Your task to perform on an android device: Search for seafood restaurants on Google Maps Image 0: 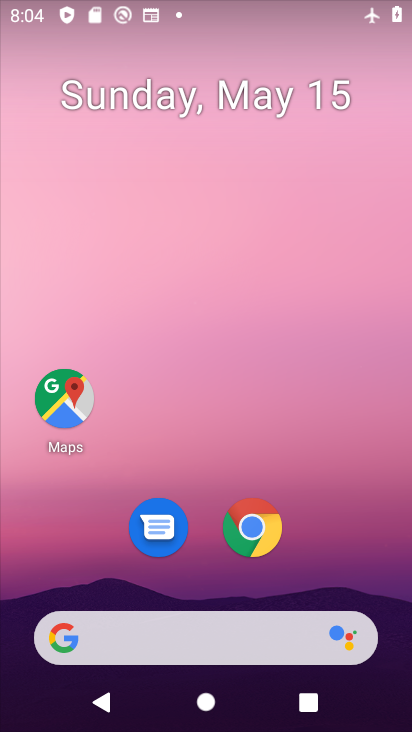
Step 0: click (73, 406)
Your task to perform on an android device: Search for seafood restaurants on Google Maps Image 1: 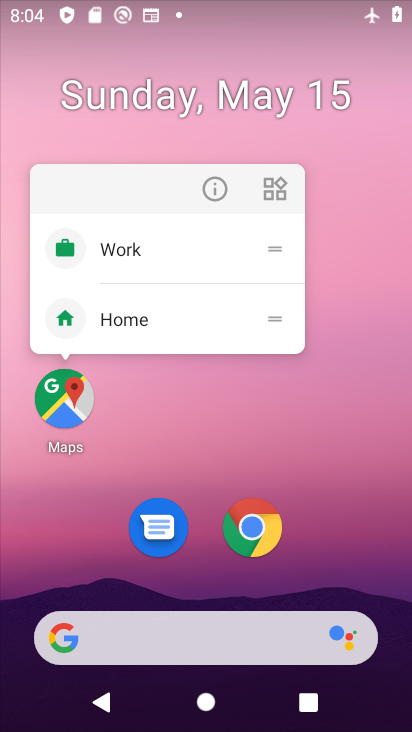
Step 1: click (73, 406)
Your task to perform on an android device: Search for seafood restaurants on Google Maps Image 2: 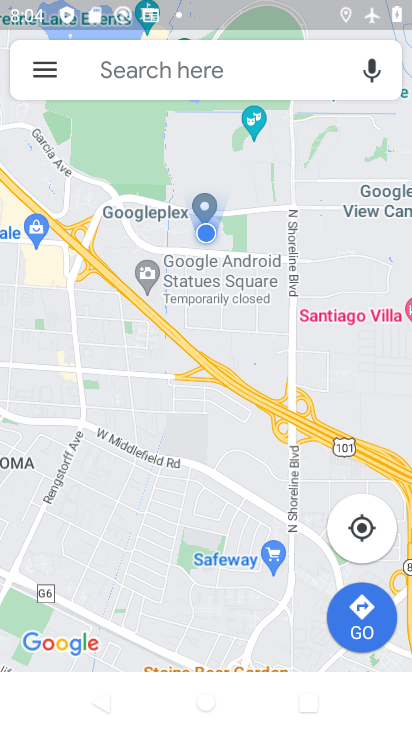
Step 2: click (97, 70)
Your task to perform on an android device: Search for seafood restaurants on Google Maps Image 3: 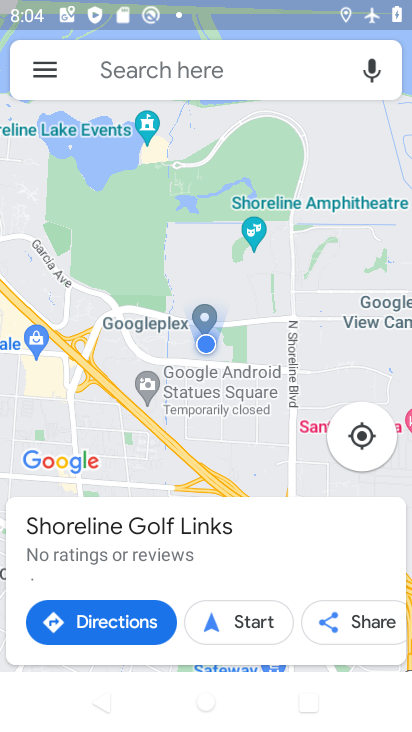
Step 3: click (165, 71)
Your task to perform on an android device: Search for seafood restaurants on Google Maps Image 4: 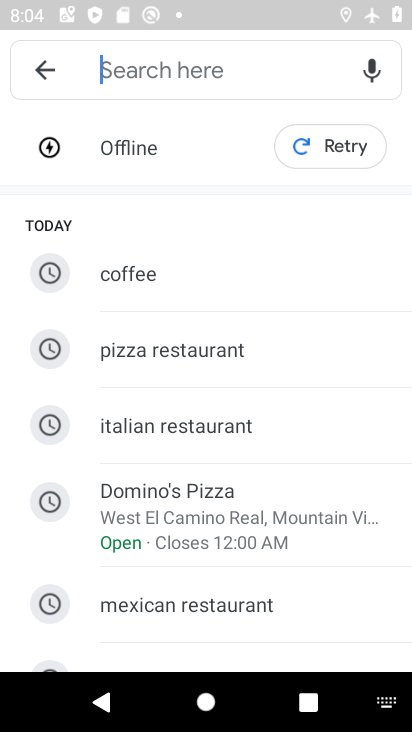
Step 4: type "seafood restaurants"
Your task to perform on an android device: Search for seafood restaurants on Google Maps Image 5: 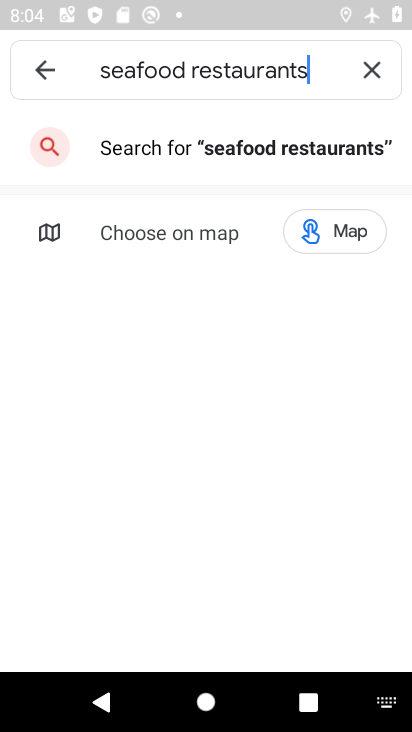
Step 5: click (301, 154)
Your task to perform on an android device: Search for seafood restaurants on Google Maps Image 6: 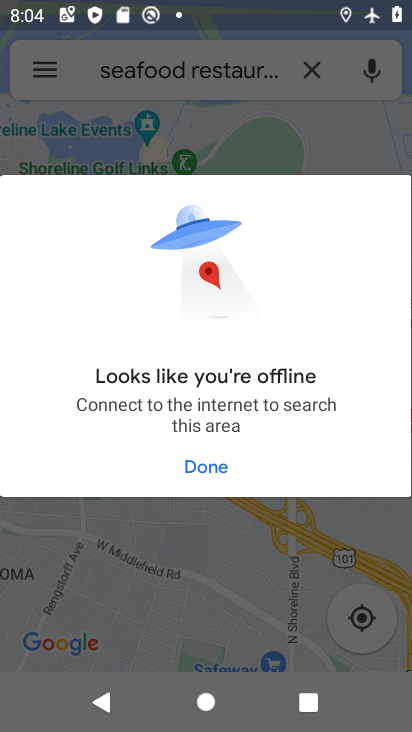
Step 6: task complete